Your task to perform on an android device: Go to Google Image 0: 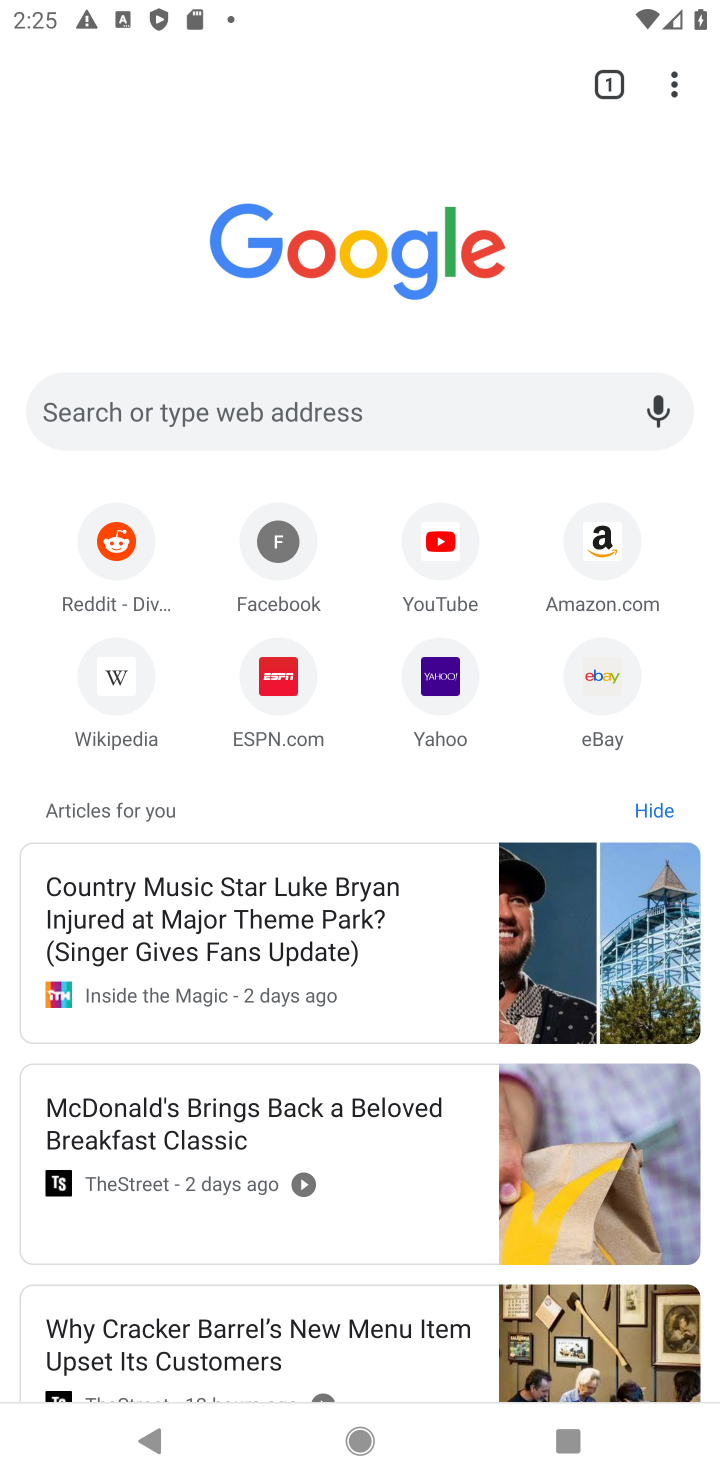
Step 0: click (188, 416)
Your task to perform on an android device: Go to Google Image 1: 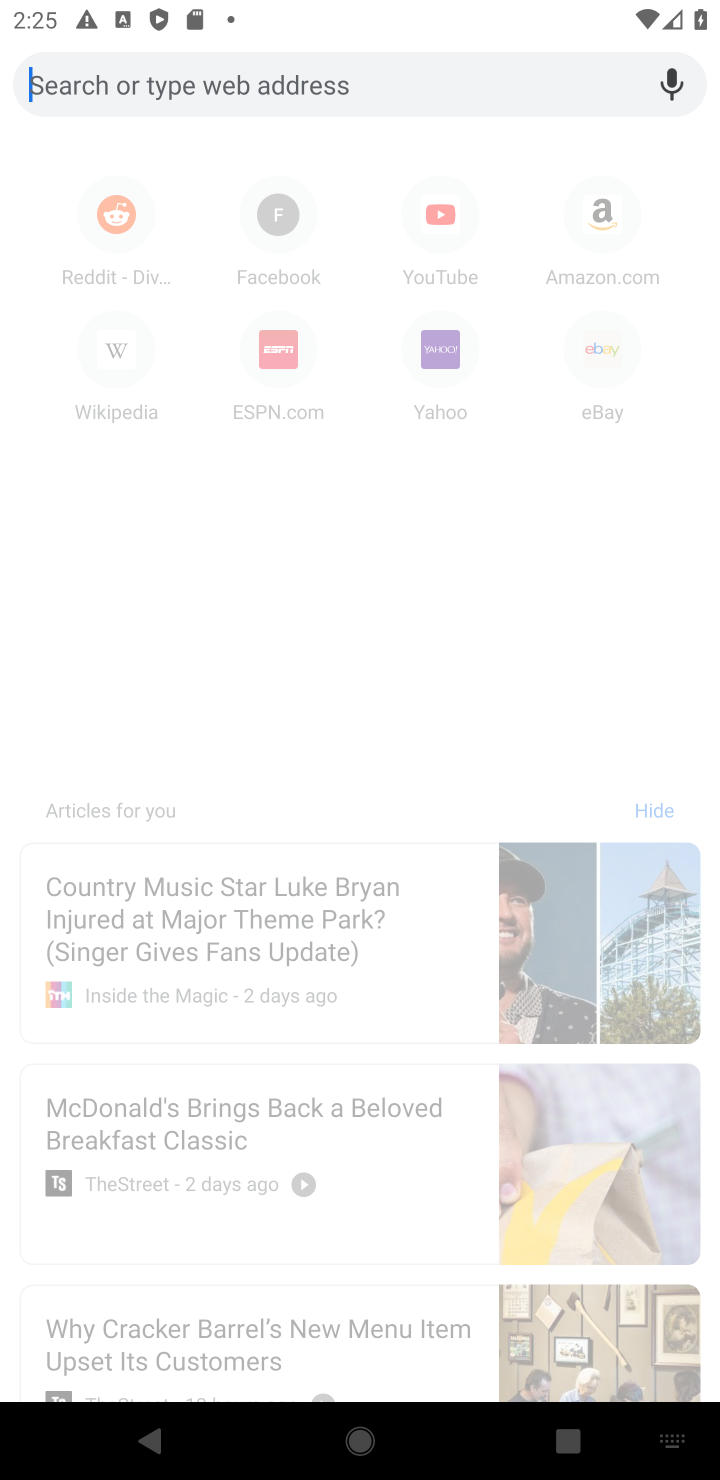
Step 1: task complete